Your task to perform on an android device: Search for sushi restaurants on Maps Image 0: 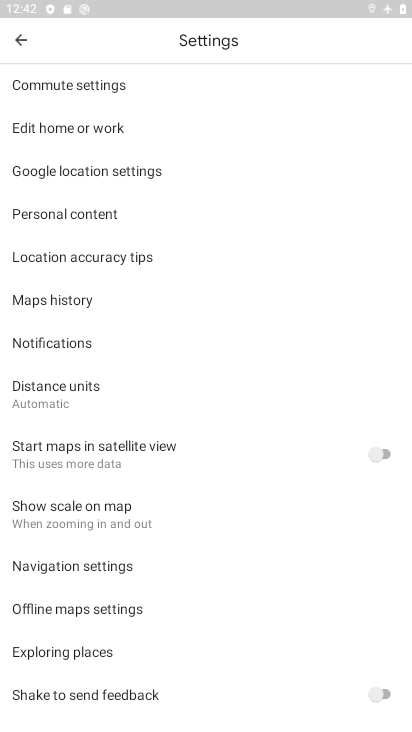
Step 0: press home button
Your task to perform on an android device: Search for sushi restaurants on Maps Image 1: 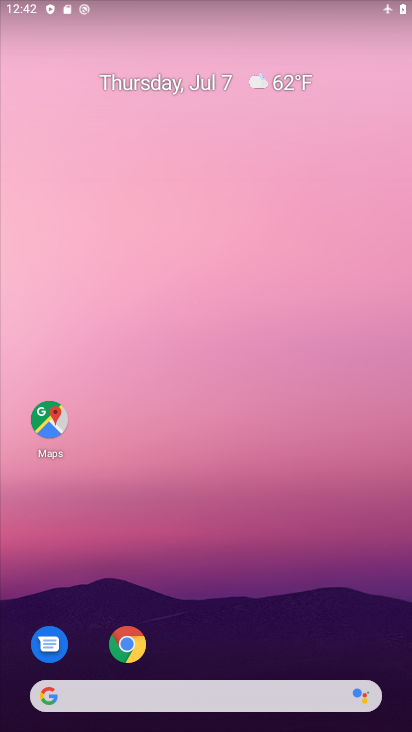
Step 1: drag from (4, 590) to (225, 153)
Your task to perform on an android device: Search for sushi restaurants on Maps Image 2: 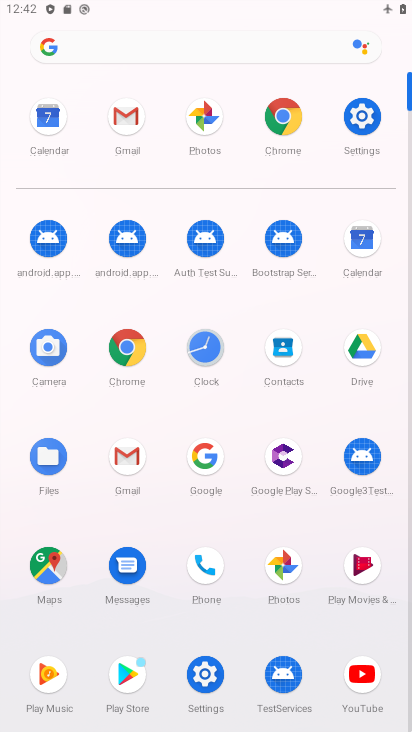
Step 2: click (46, 569)
Your task to perform on an android device: Search for sushi restaurants on Maps Image 3: 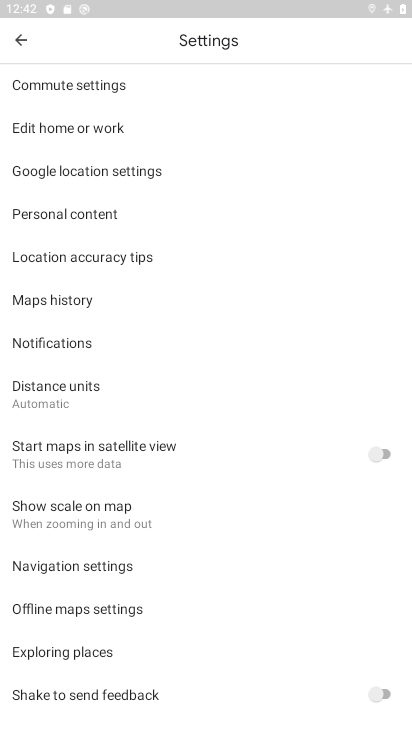
Step 3: click (17, 47)
Your task to perform on an android device: Search for sushi restaurants on Maps Image 4: 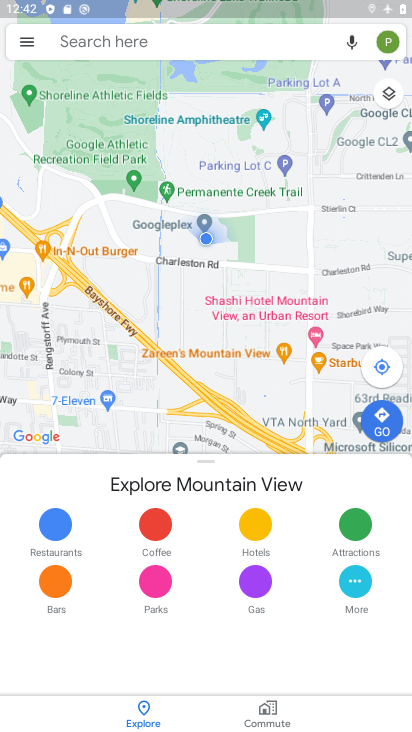
Step 4: click (192, 42)
Your task to perform on an android device: Search for sushi restaurants on Maps Image 5: 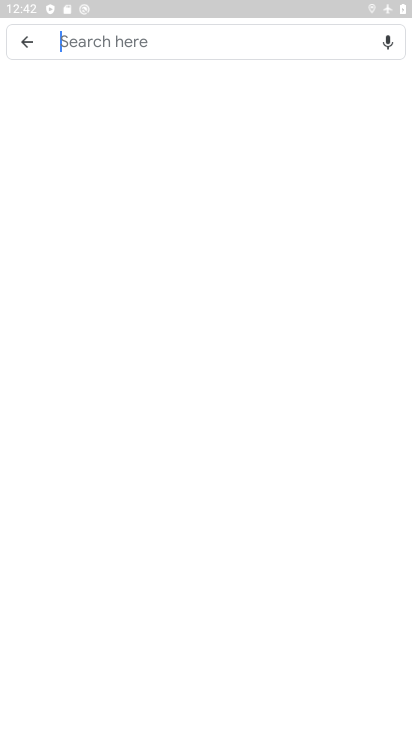
Step 5: click (184, 32)
Your task to perform on an android device: Search for sushi restaurants on Maps Image 6: 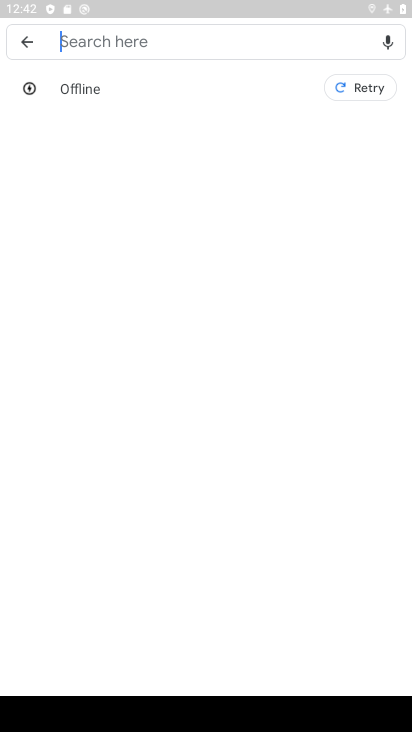
Step 6: type " sushi restaurants "
Your task to perform on an android device: Search for sushi restaurants on Maps Image 7: 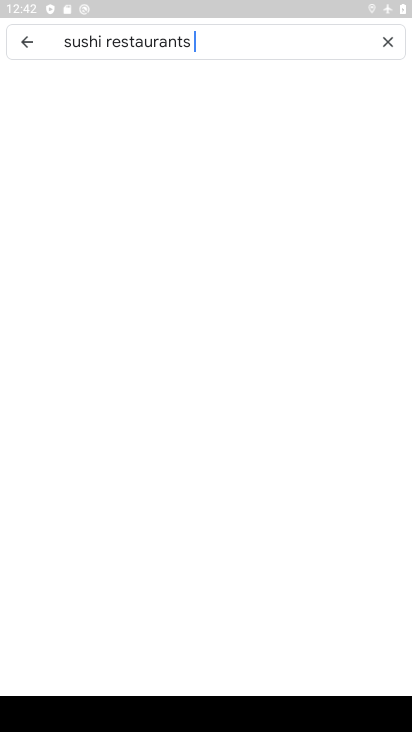
Step 7: type ""
Your task to perform on an android device: Search for sushi restaurants on Maps Image 8: 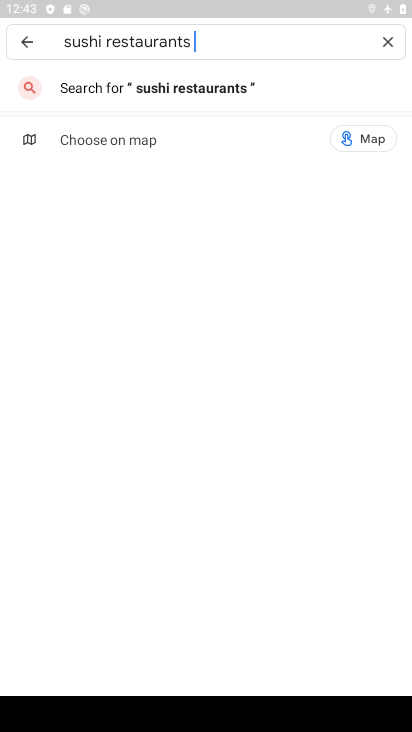
Step 8: click (144, 85)
Your task to perform on an android device: Search for sushi restaurants on Maps Image 9: 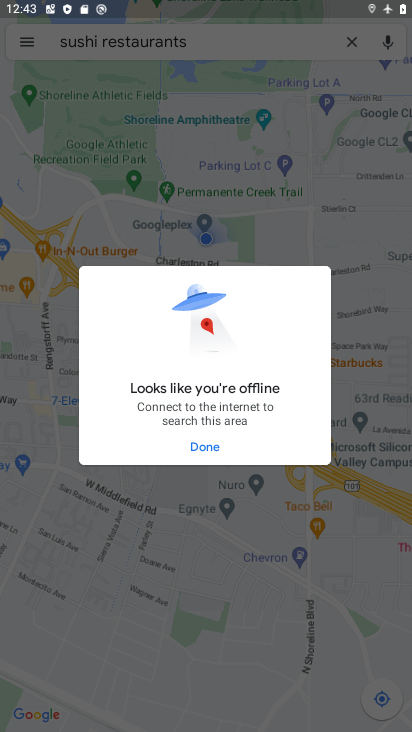
Step 9: drag from (360, 11) to (298, 491)
Your task to perform on an android device: Search for sushi restaurants on Maps Image 10: 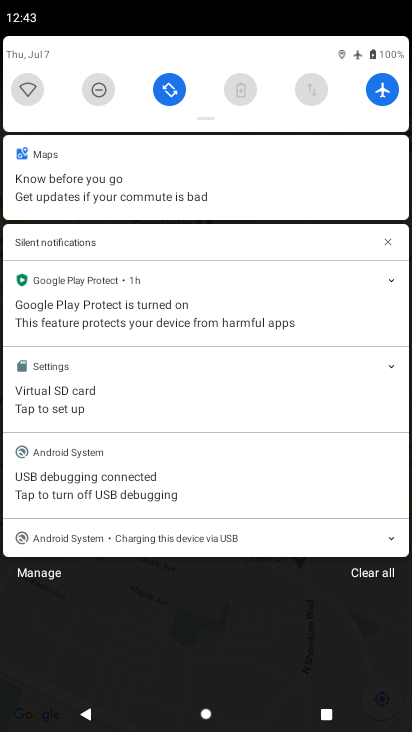
Step 10: click (372, 89)
Your task to perform on an android device: Search for sushi restaurants on Maps Image 11: 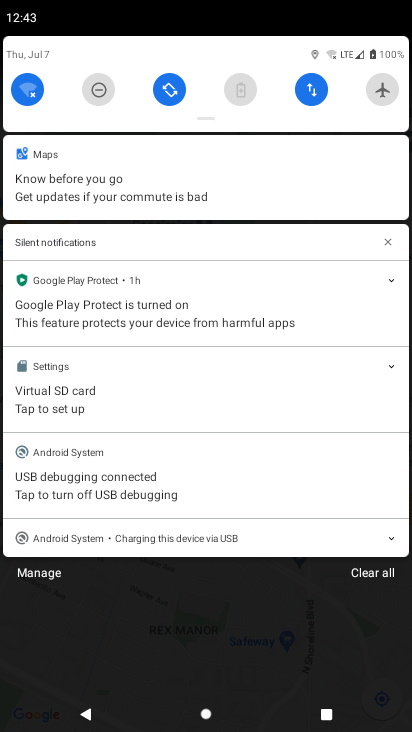
Step 11: task complete